Your task to perform on an android device: open device folders in google photos Image 0: 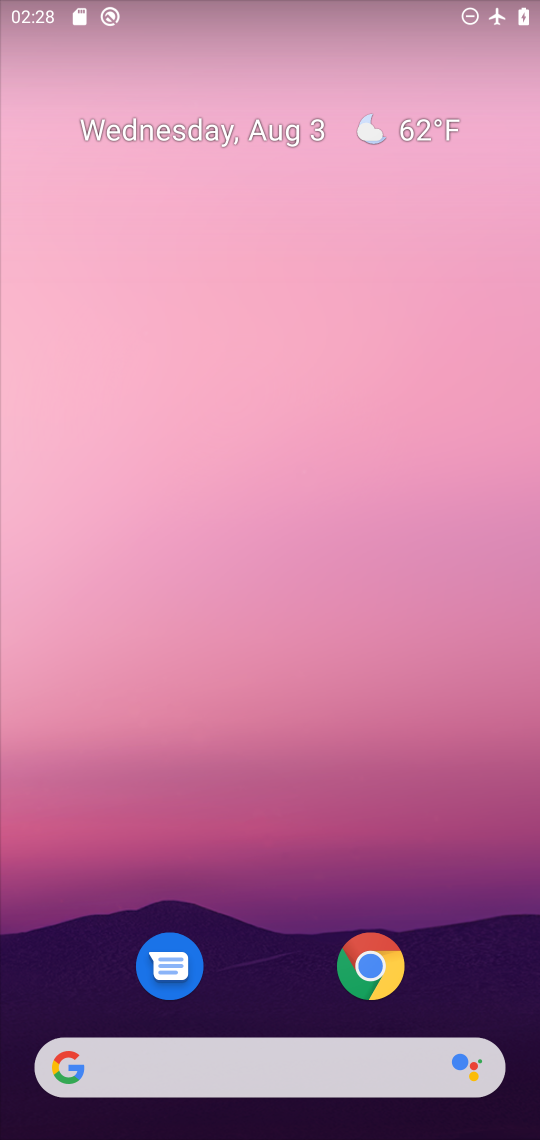
Step 0: drag from (239, 957) to (228, 230)
Your task to perform on an android device: open device folders in google photos Image 1: 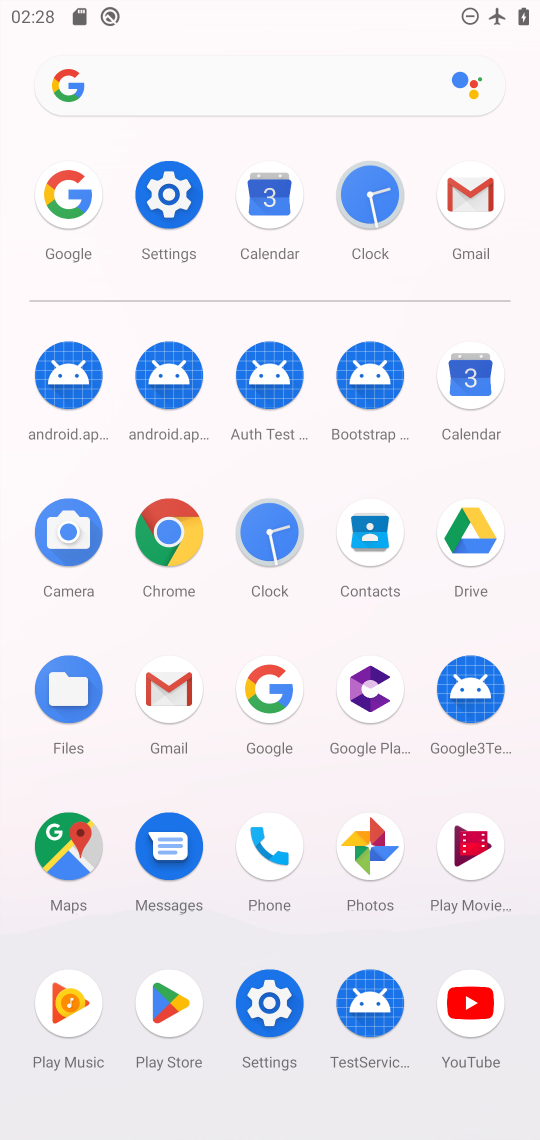
Step 1: click (386, 851)
Your task to perform on an android device: open device folders in google photos Image 2: 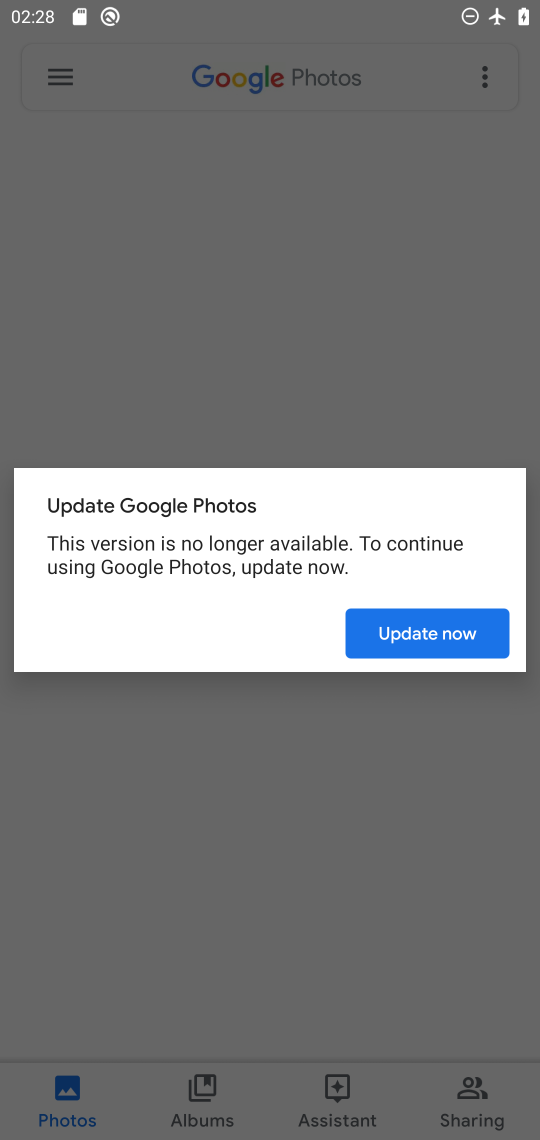
Step 2: click (53, 74)
Your task to perform on an android device: open device folders in google photos Image 3: 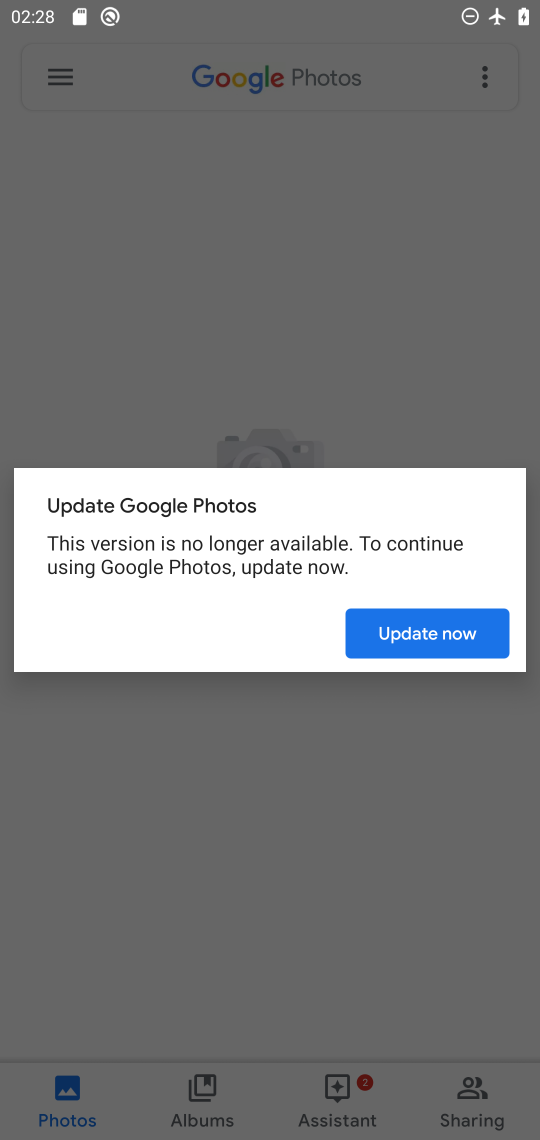
Step 3: click (428, 626)
Your task to perform on an android device: open device folders in google photos Image 4: 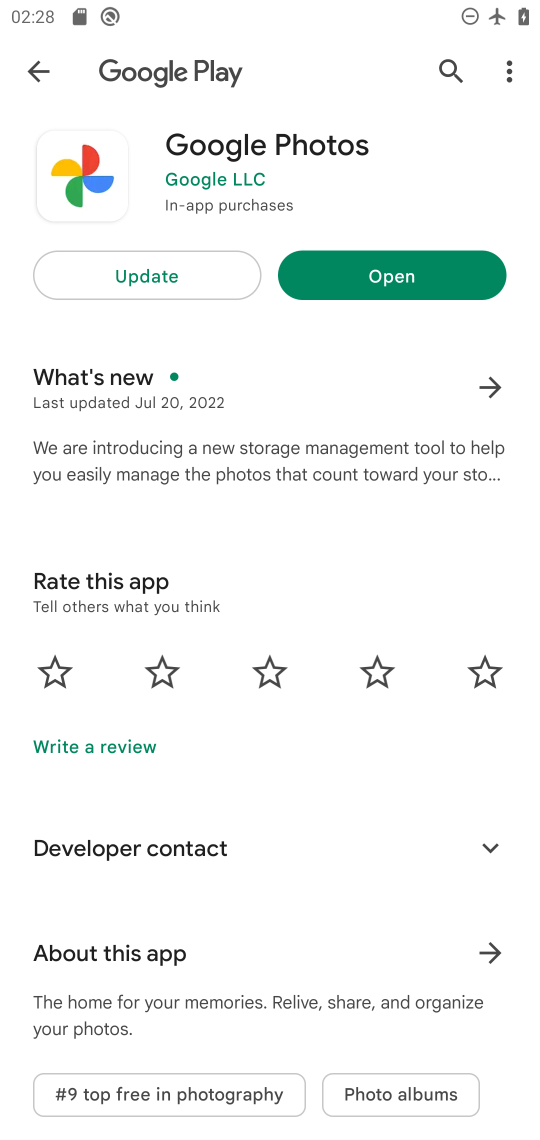
Step 4: click (357, 275)
Your task to perform on an android device: open device folders in google photos Image 5: 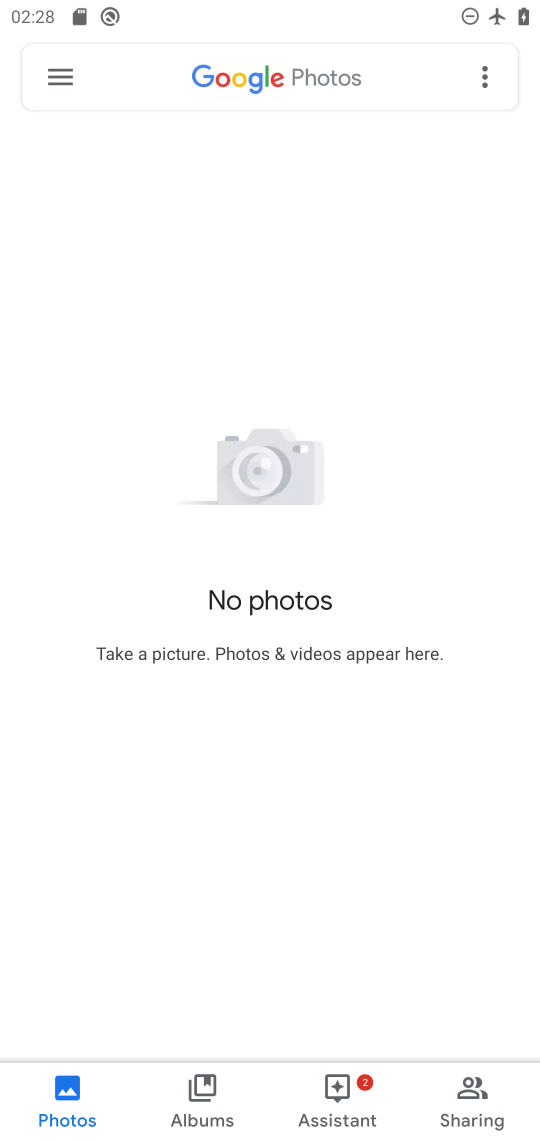
Step 5: click (72, 76)
Your task to perform on an android device: open device folders in google photos Image 6: 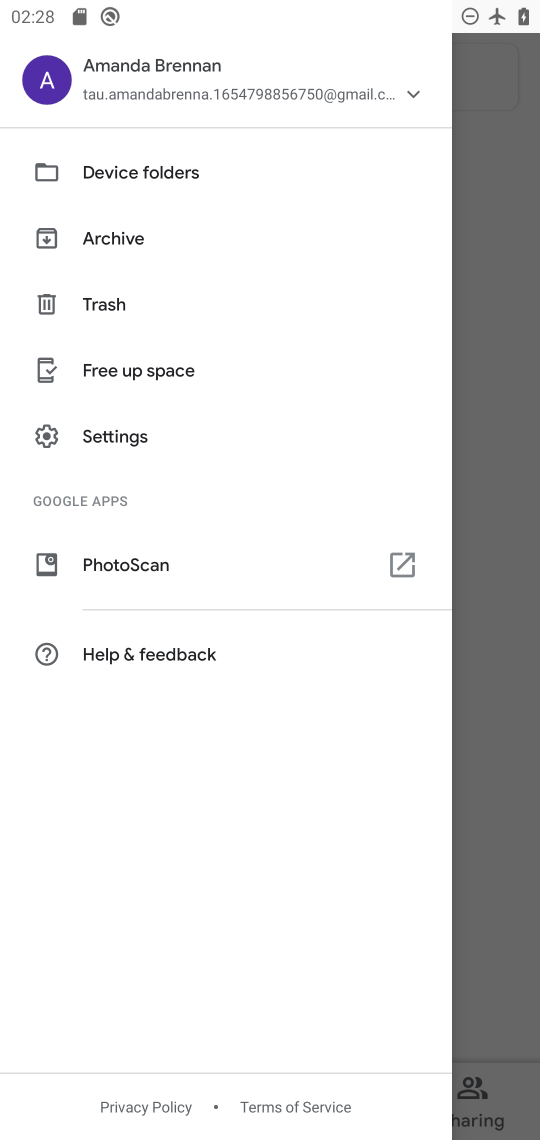
Step 6: click (176, 180)
Your task to perform on an android device: open device folders in google photos Image 7: 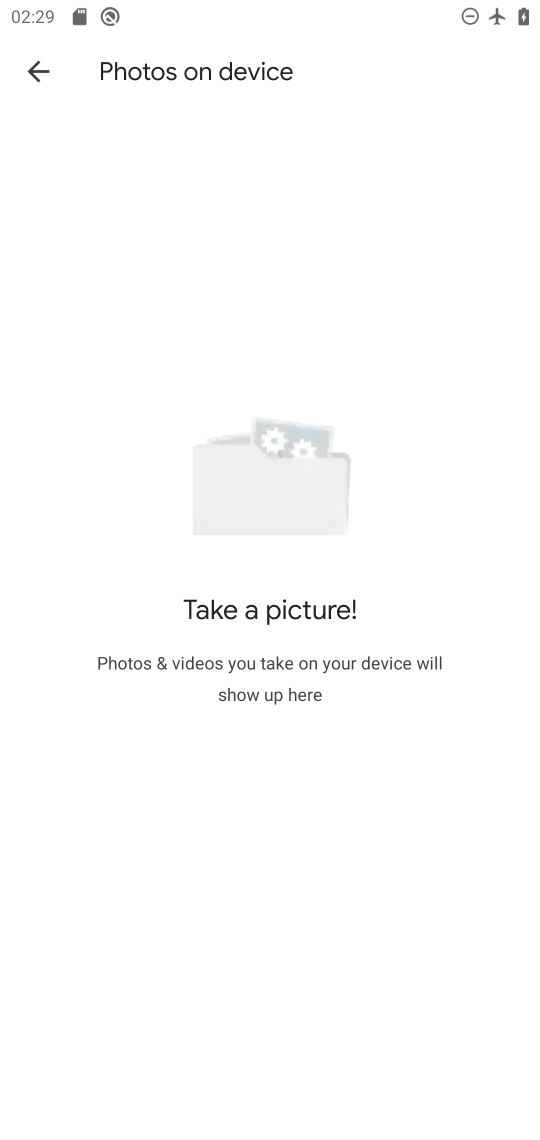
Step 7: task complete